Your task to perform on an android device: Show me popular games on the Play Store Image 0: 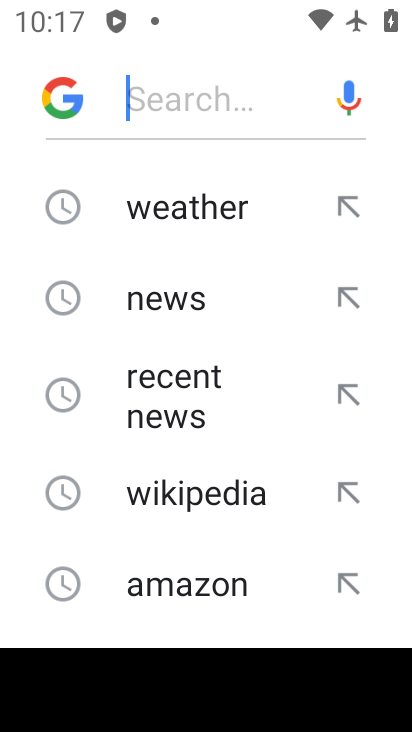
Step 0: press home button
Your task to perform on an android device: Show me popular games on the Play Store Image 1: 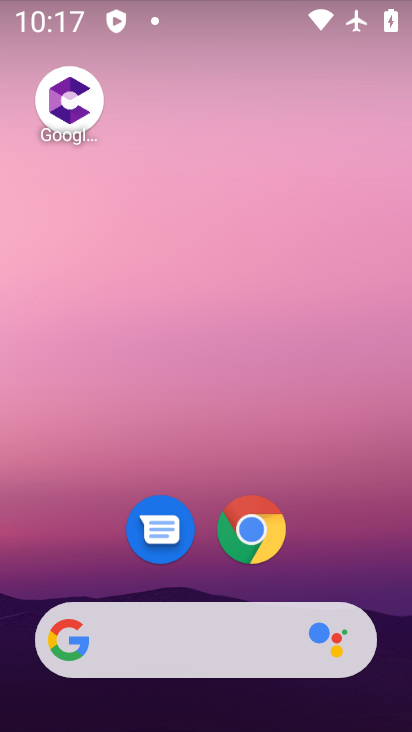
Step 1: drag from (328, 471) to (308, 5)
Your task to perform on an android device: Show me popular games on the Play Store Image 2: 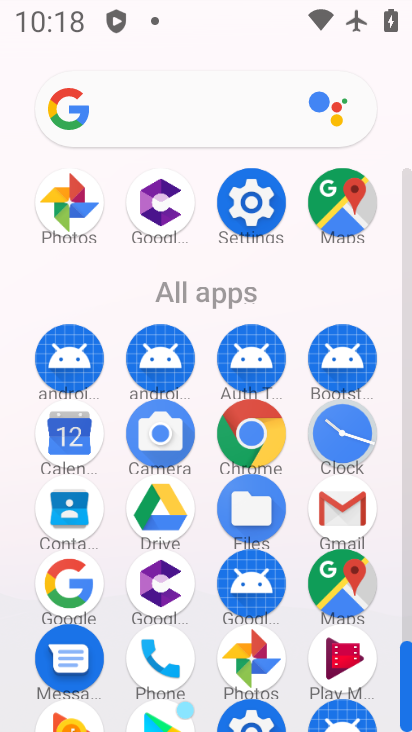
Step 2: drag from (271, 658) to (269, 306)
Your task to perform on an android device: Show me popular games on the Play Store Image 3: 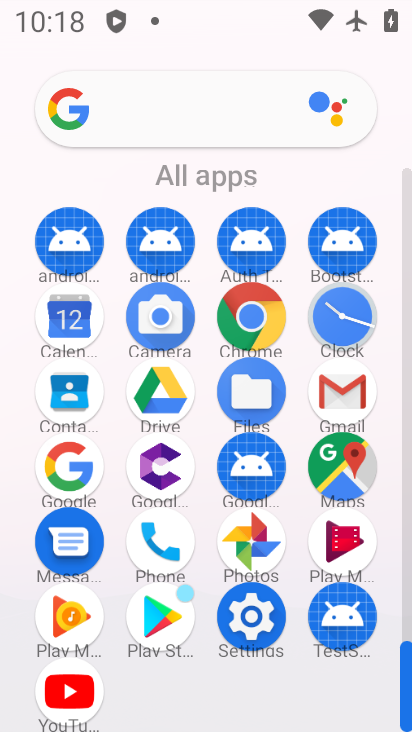
Step 3: click (147, 611)
Your task to perform on an android device: Show me popular games on the Play Store Image 4: 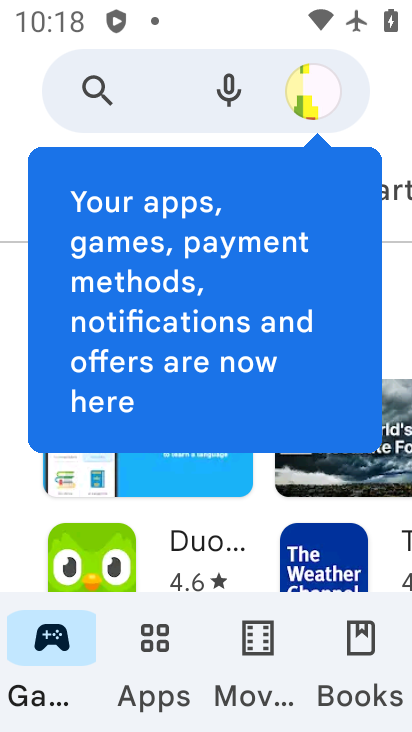
Step 4: click (79, 658)
Your task to perform on an android device: Show me popular games on the Play Store Image 5: 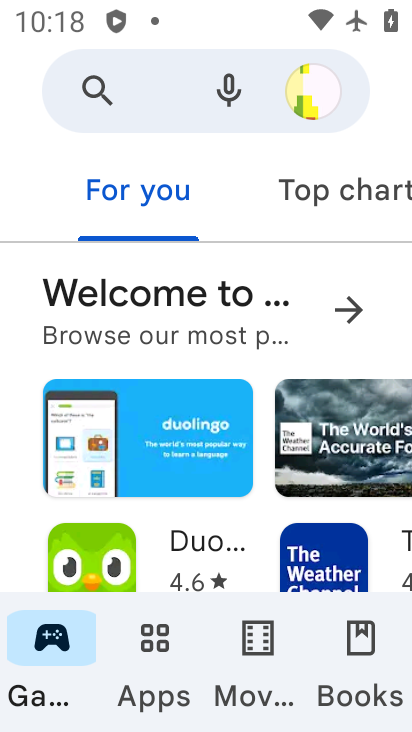
Step 5: click (378, 204)
Your task to perform on an android device: Show me popular games on the Play Store Image 6: 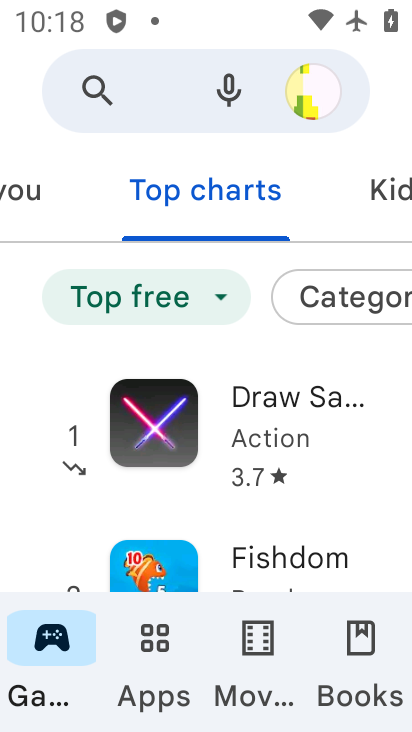
Step 6: task complete